Your task to perform on an android device: turn pop-ups on in chrome Image 0: 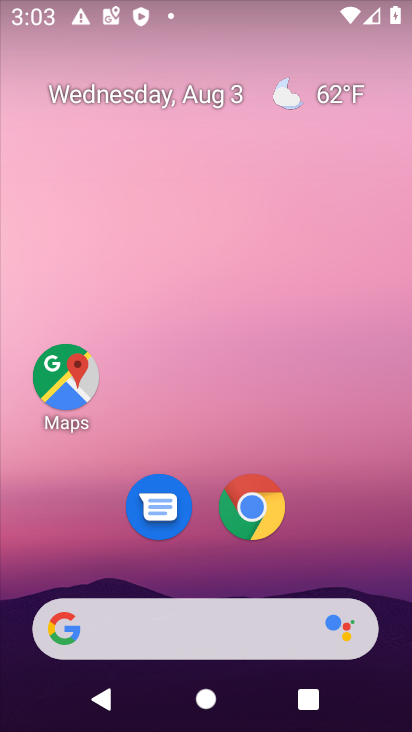
Step 0: click (258, 512)
Your task to perform on an android device: turn pop-ups on in chrome Image 1: 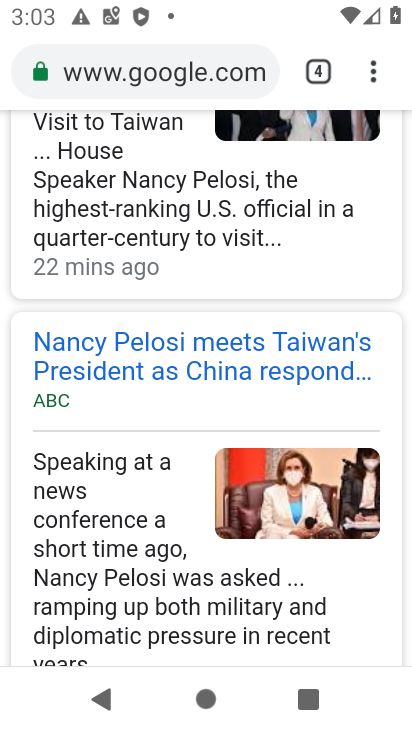
Step 1: click (381, 69)
Your task to perform on an android device: turn pop-ups on in chrome Image 2: 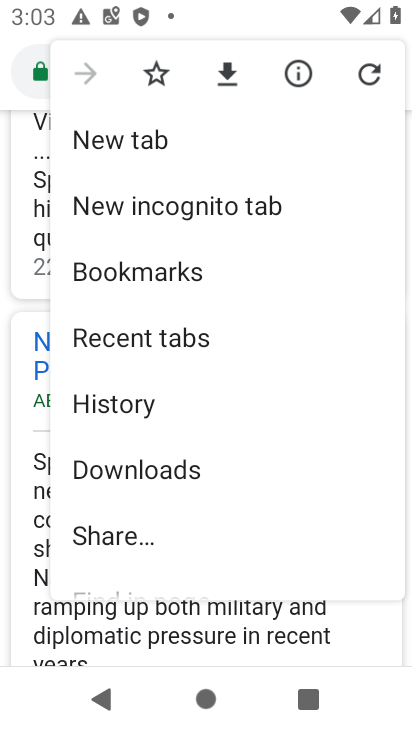
Step 2: drag from (197, 528) to (90, 93)
Your task to perform on an android device: turn pop-ups on in chrome Image 3: 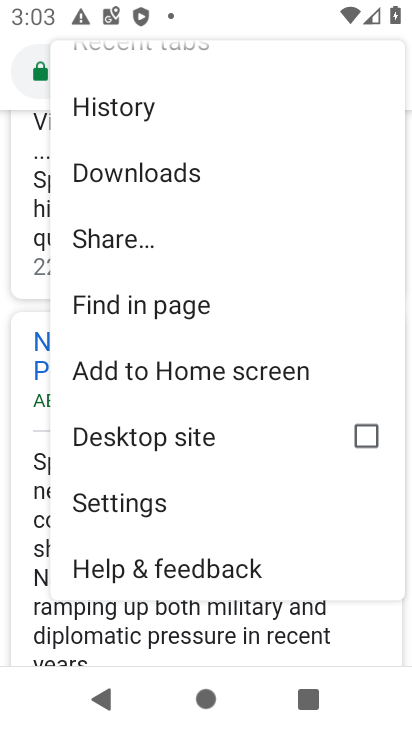
Step 3: click (145, 504)
Your task to perform on an android device: turn pop-ups on in chrome Image 4: 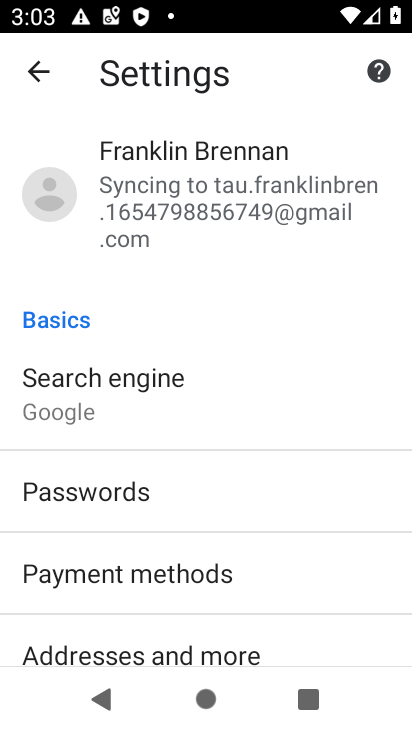
Step 4: drag from (336, 653) to (272, 61)
Your task to perform on an android device: turn pop-ups on in chrome Image 5: 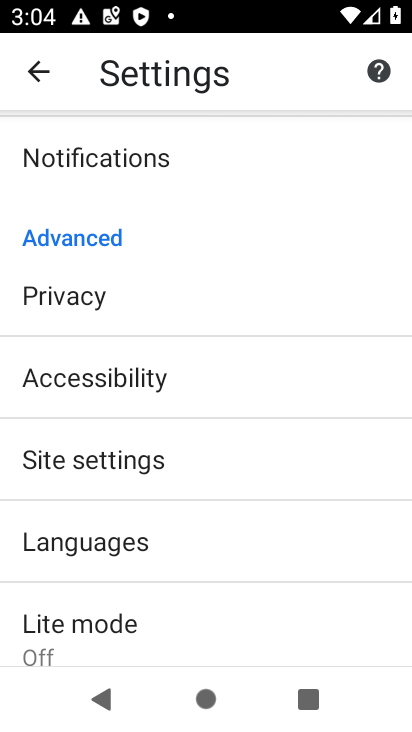
Step 5: click (89, 468)
Your task to perform on an android device: turn pop-ups on in chrome Image 6: 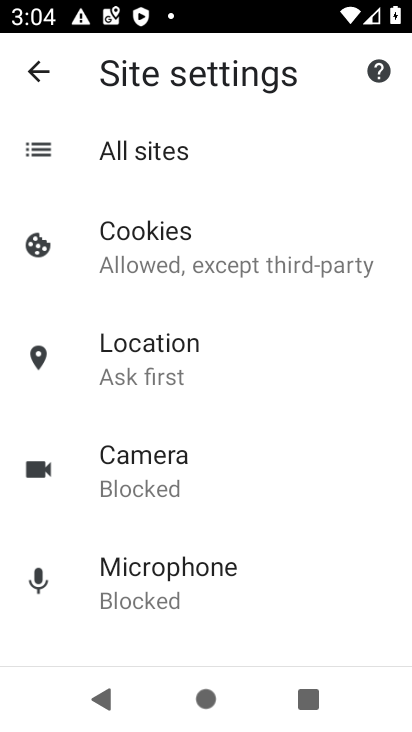
Step 6: drag from (314, 611) to (279, 56)
Your task to perform on an android device: turn pop-ups on in chrome Image 7: 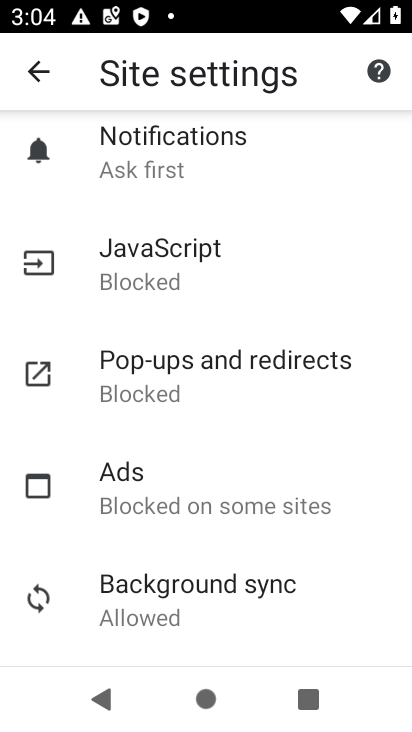
Step 7: click (187, 366)
Your task to perform on an android device: turn pop-ups on in chrome Image 8: 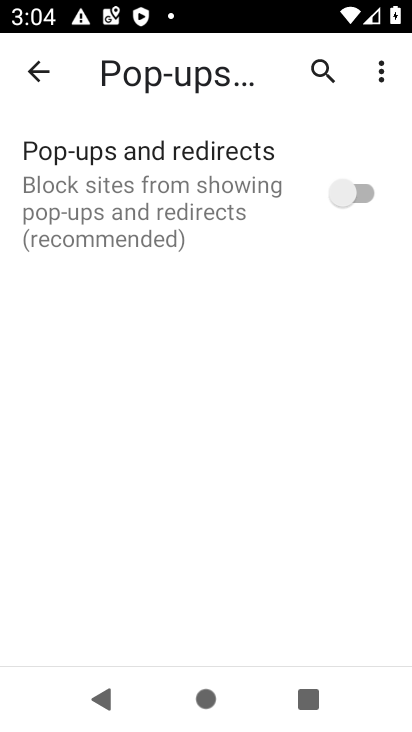
Step 8: click (359, 191)
Your task to perform on an android device: turn pop-ups on in chrome Image 9: 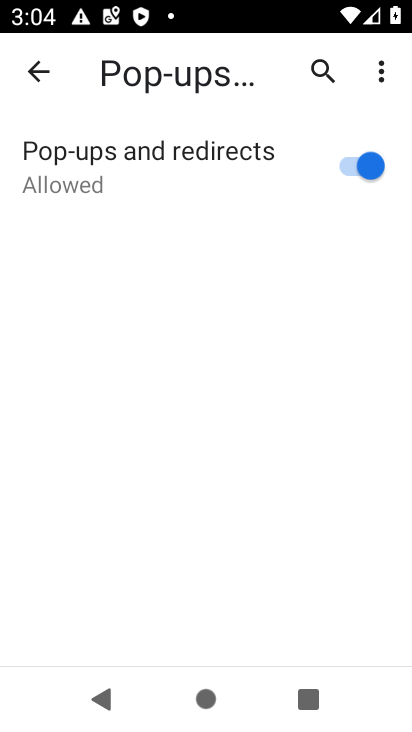
Step 9: task complete